Your task to perform on an android device: Open Google Maps Image 0: 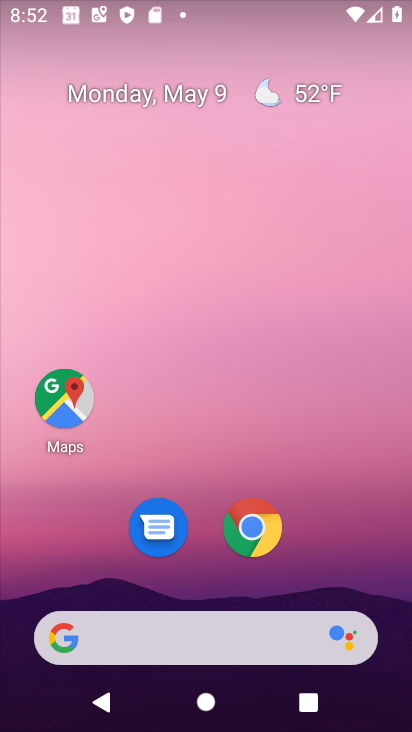
Step 0: click (63, 394)
Your task to perform on an android device: Open Google Maps Image 1: 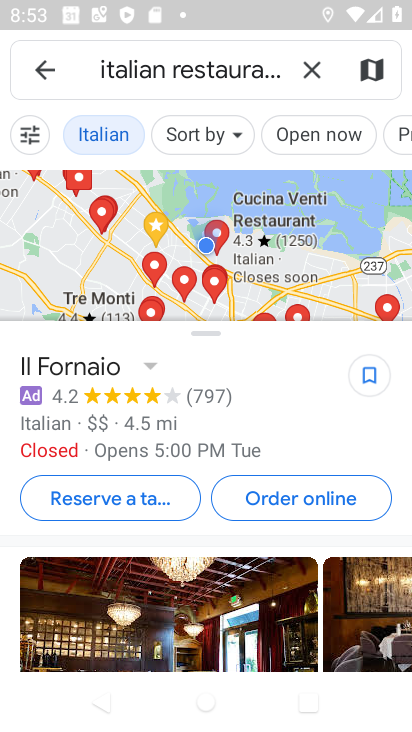
Step 1: task complete